Your task to perform on an android device: Search for the new Air Jordan 13 on Nike.com Image 0: 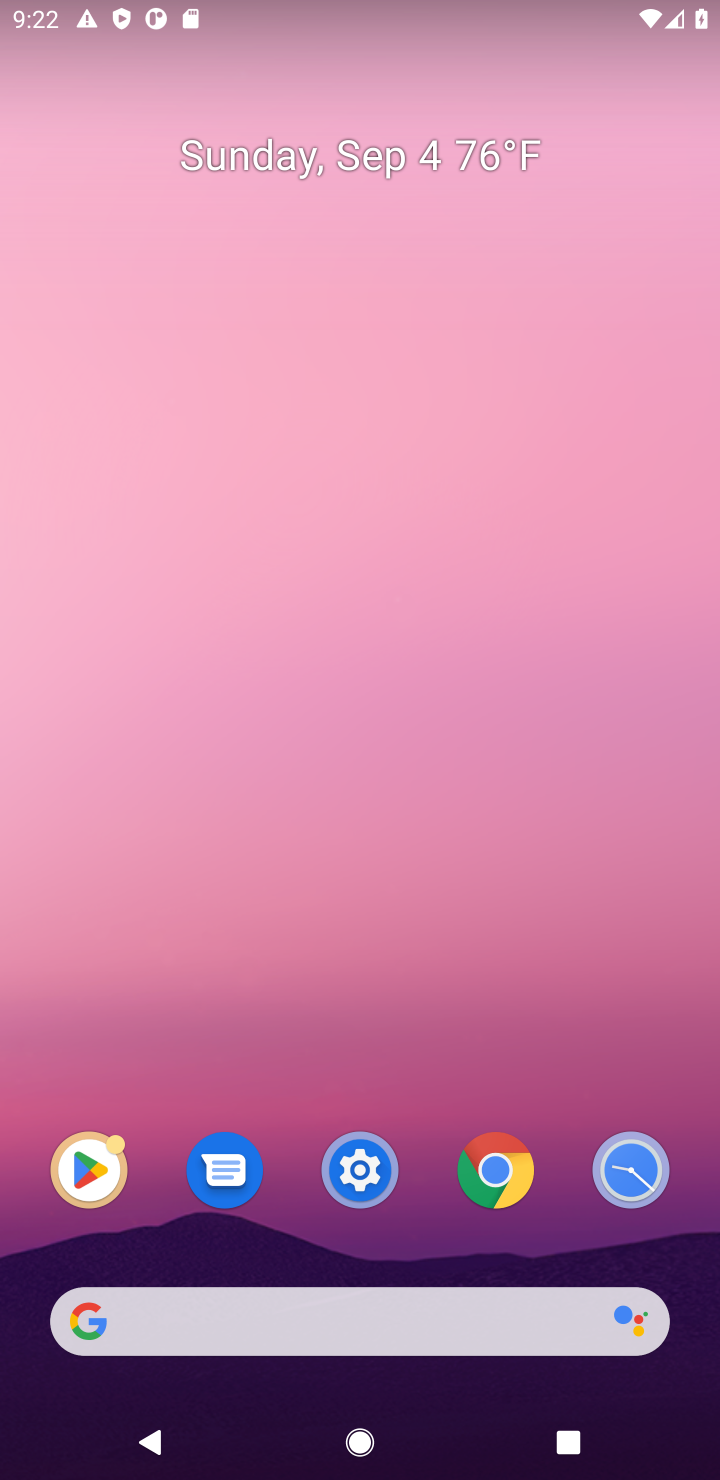
Step 0: press home button
Your task to perform on an android device: Search for the new Air Jordan 13 on Nike.com Image 1: 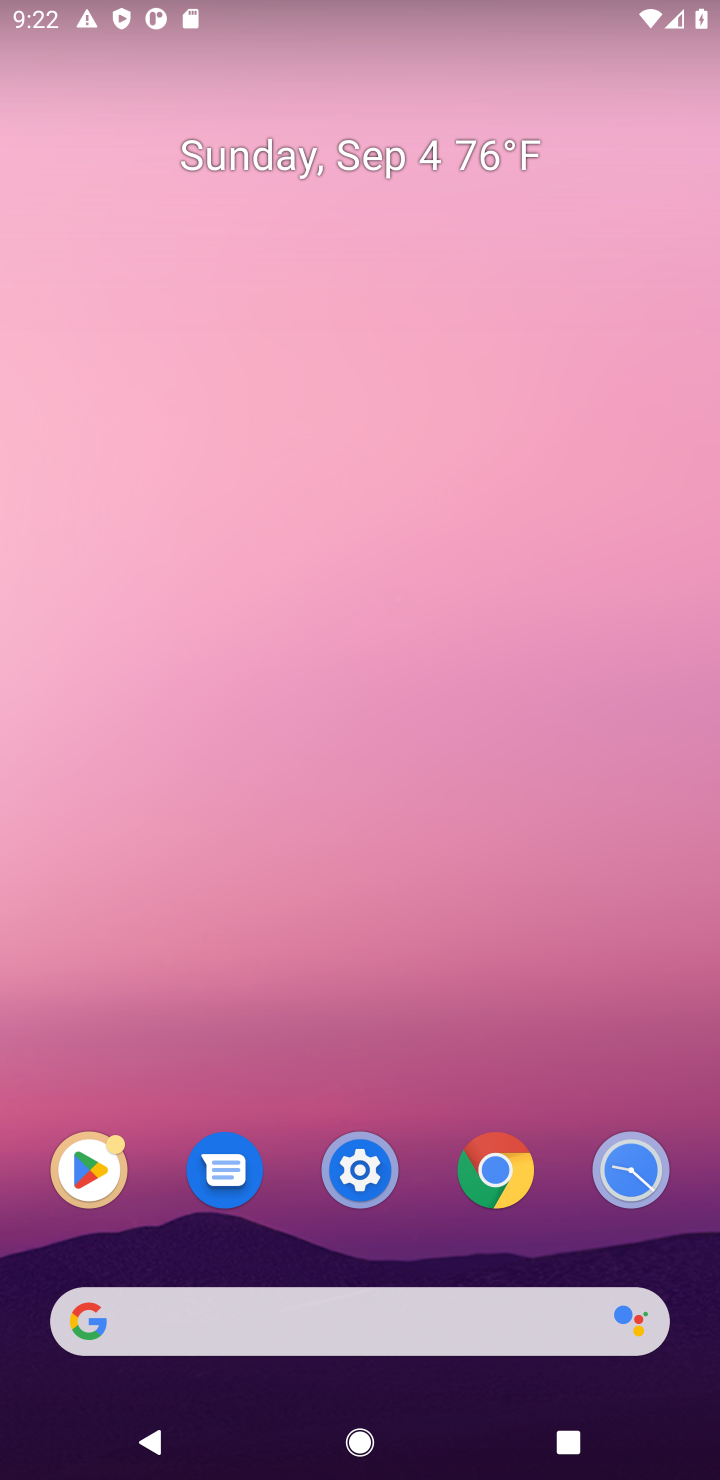
Step 1: click (369, 1327)
Your task to perform on an android device: Search for the new Air Jordan 13 on Nike.com Image 2: 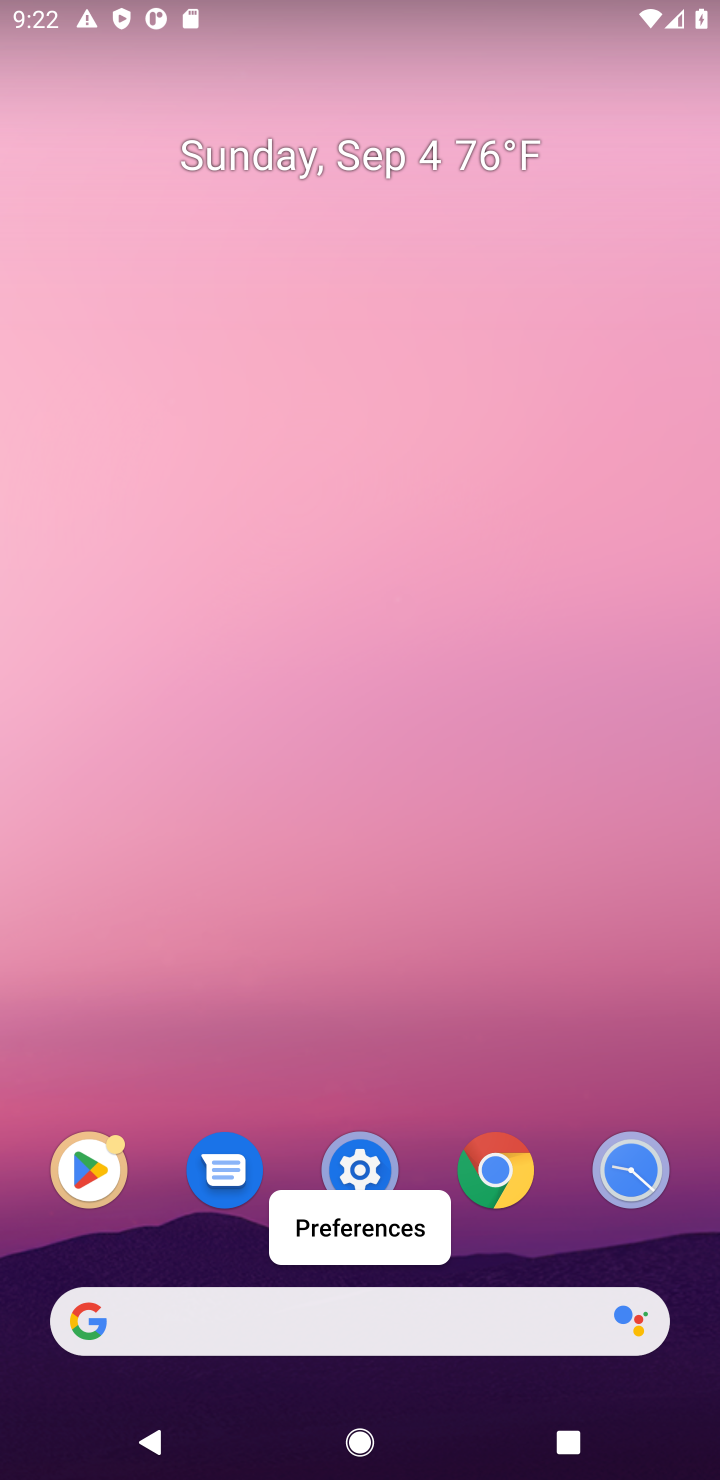
Step 2: click (325, 1302)
Your task to perform on an android device: Search for the new Air Jordan 13 on Nike.com Image 3: 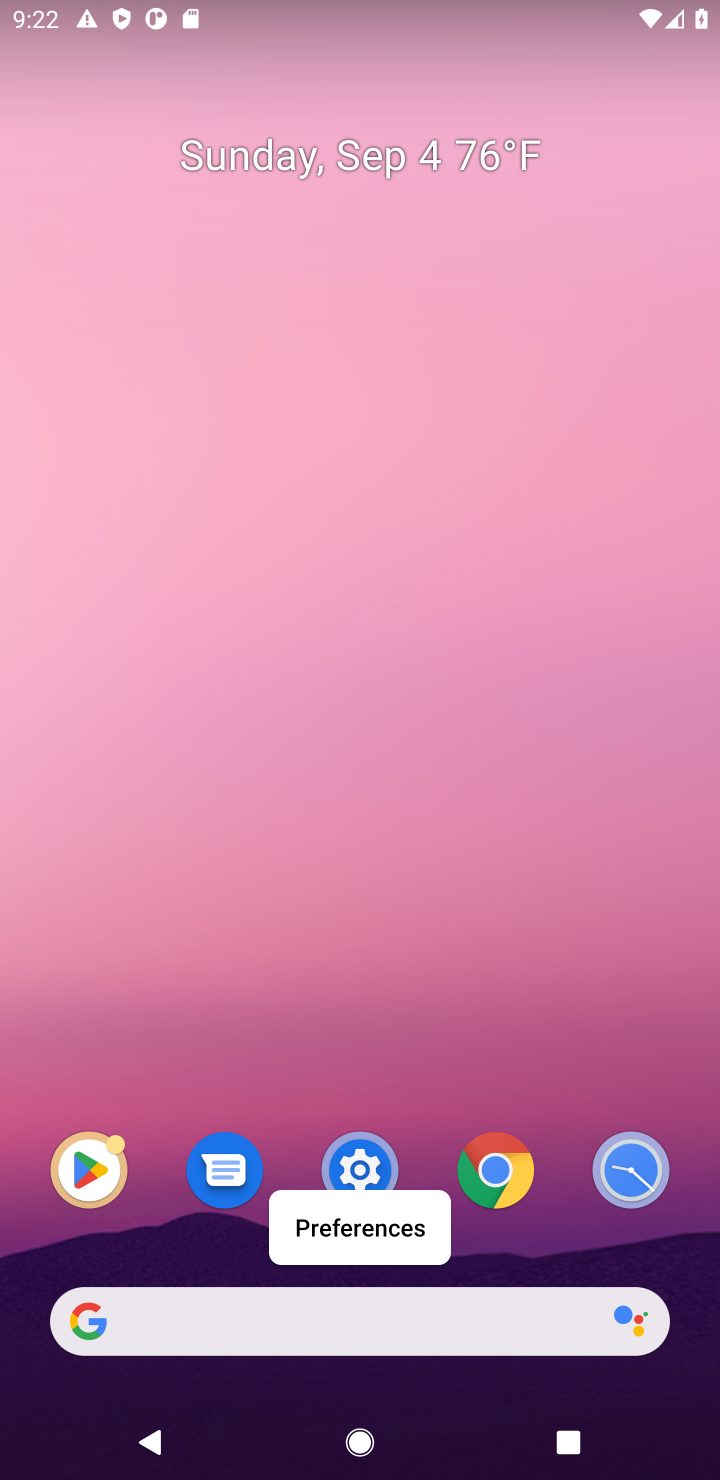
Step 3: click (444, 1294)
Your task to perform on an android device: Search for the new Air Jordan 13 on Nike.com Image 4: 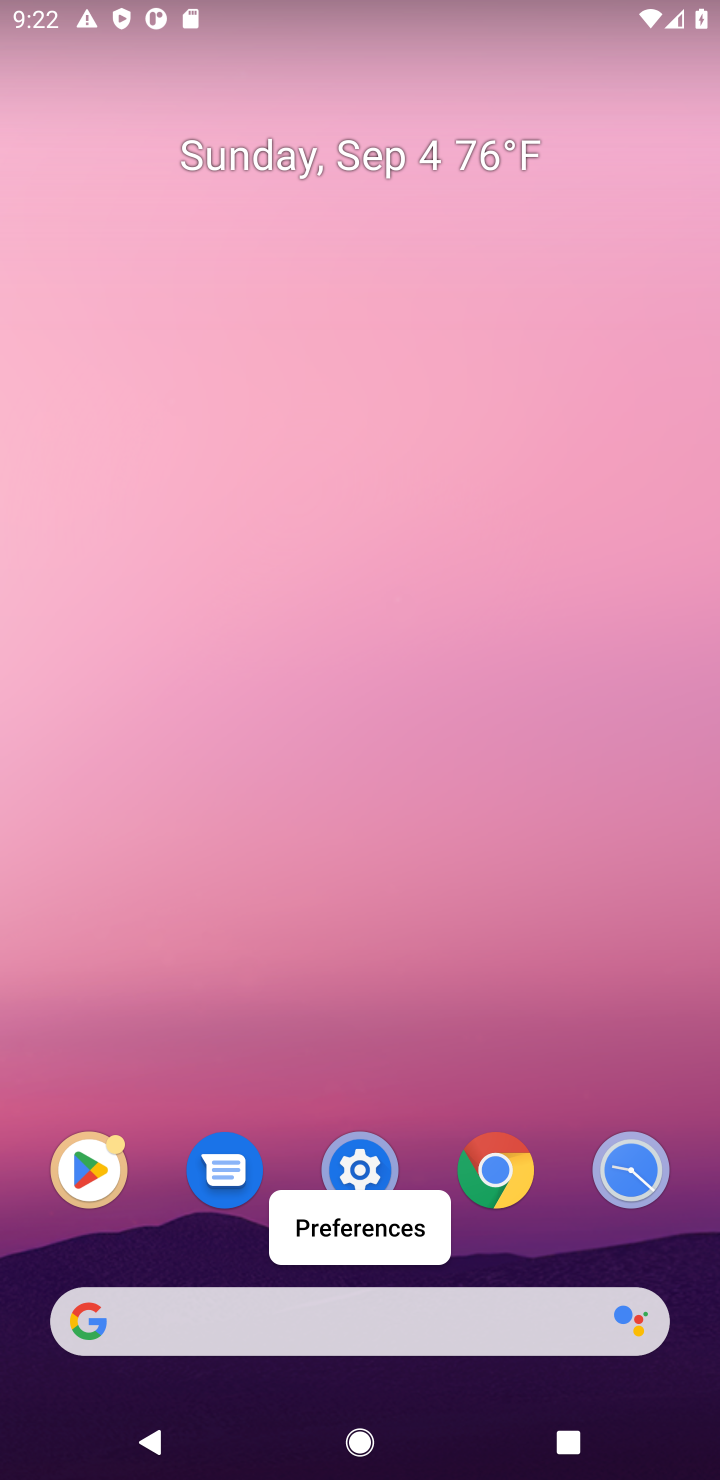
Step 4: click (429, 1331)
Your task to perform on an android device: Search for the new Air Jordan 13 on Nike.com Image 5: 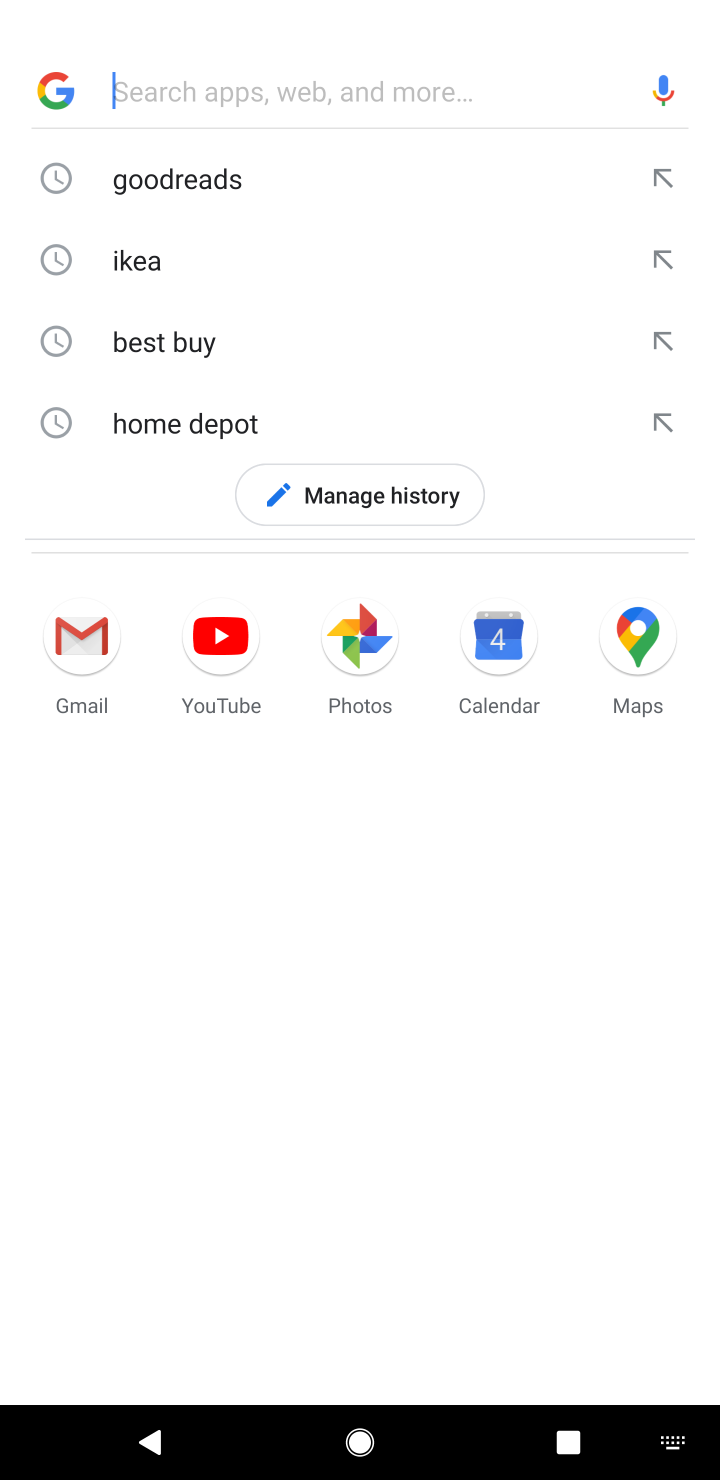
Step 5: type "Nike.com"
Your task to perform on an android device: Search for the new Air Jordan 13 on Nike.com Image 6: 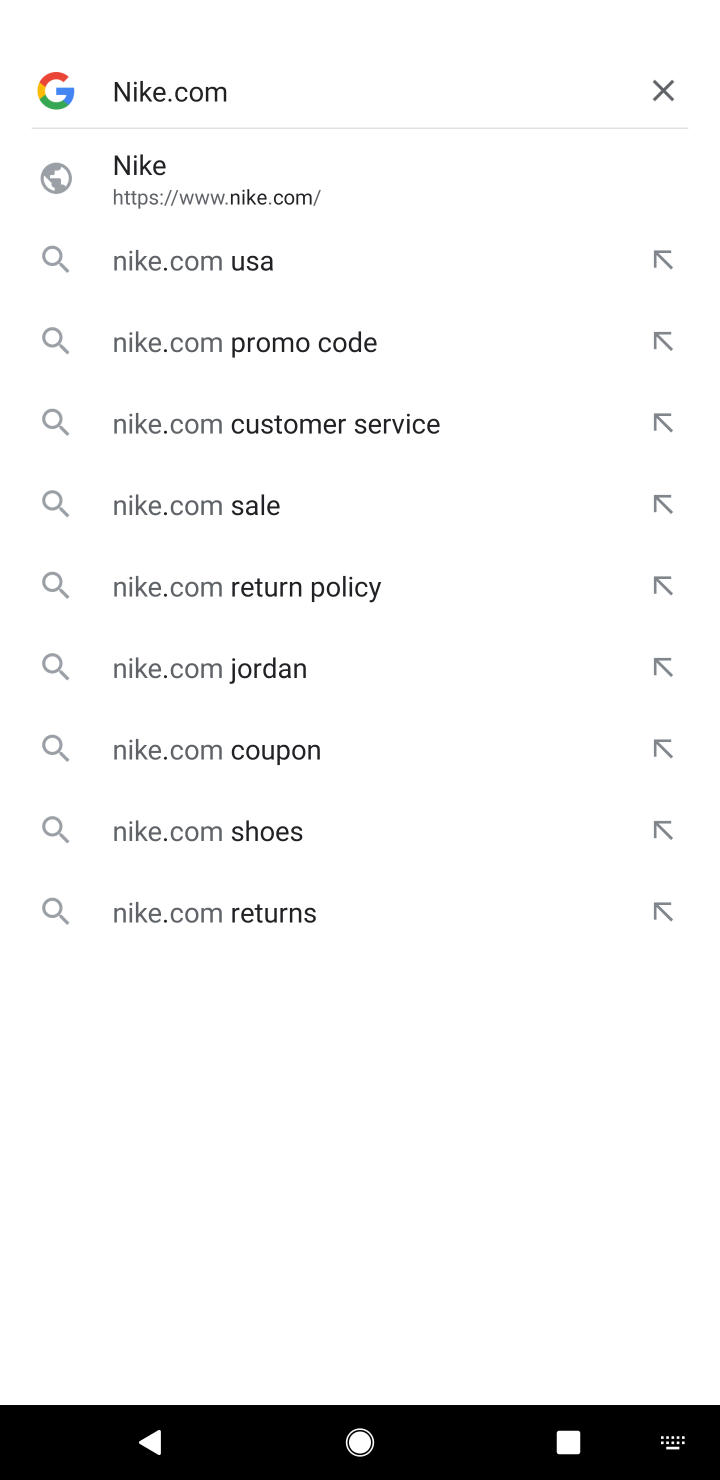
Step 6: click (241, 200)
Your task to perform on an android device: Search for the new Air Jordan 13 on Nike.com Image 7: 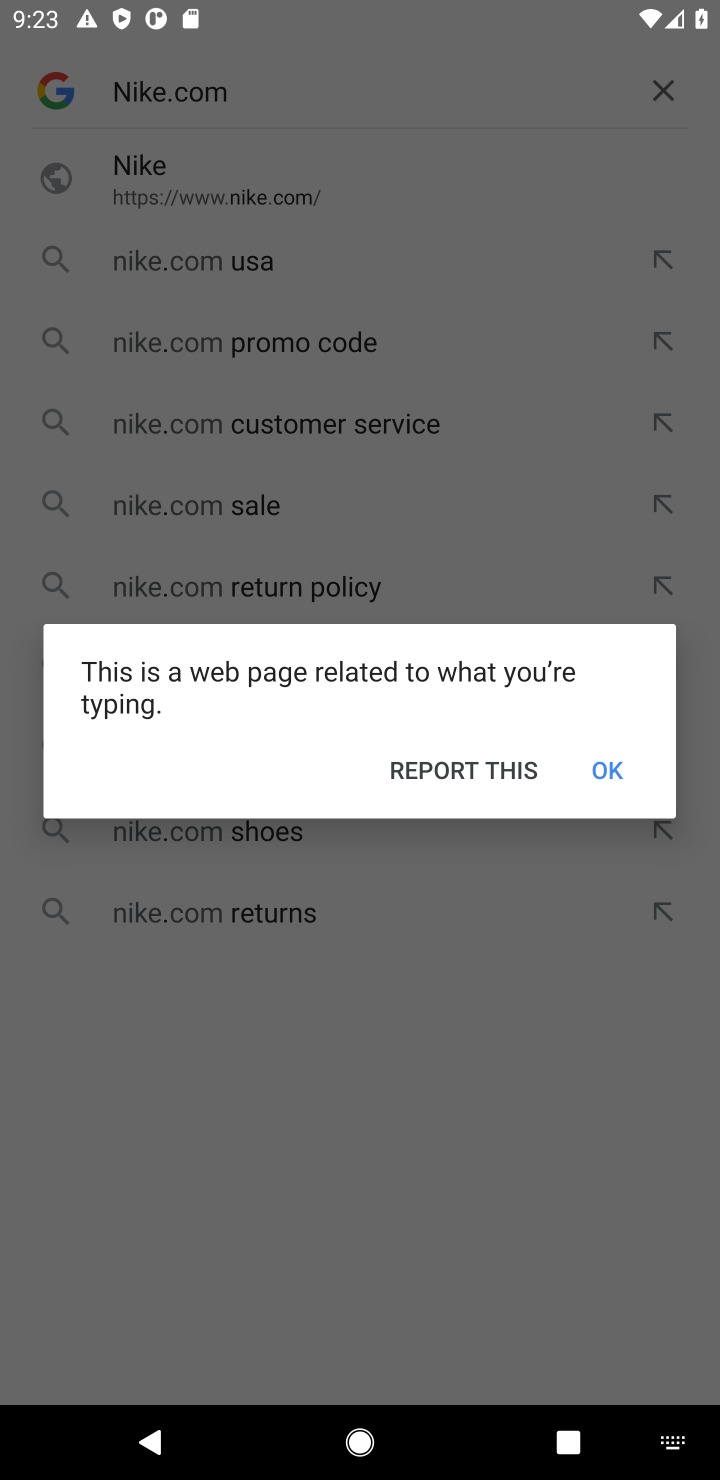
Step 7: click (624, 778)
Your task to perform on an android device: Search for the new Air Jordan 13 on Nike.com Image 8: 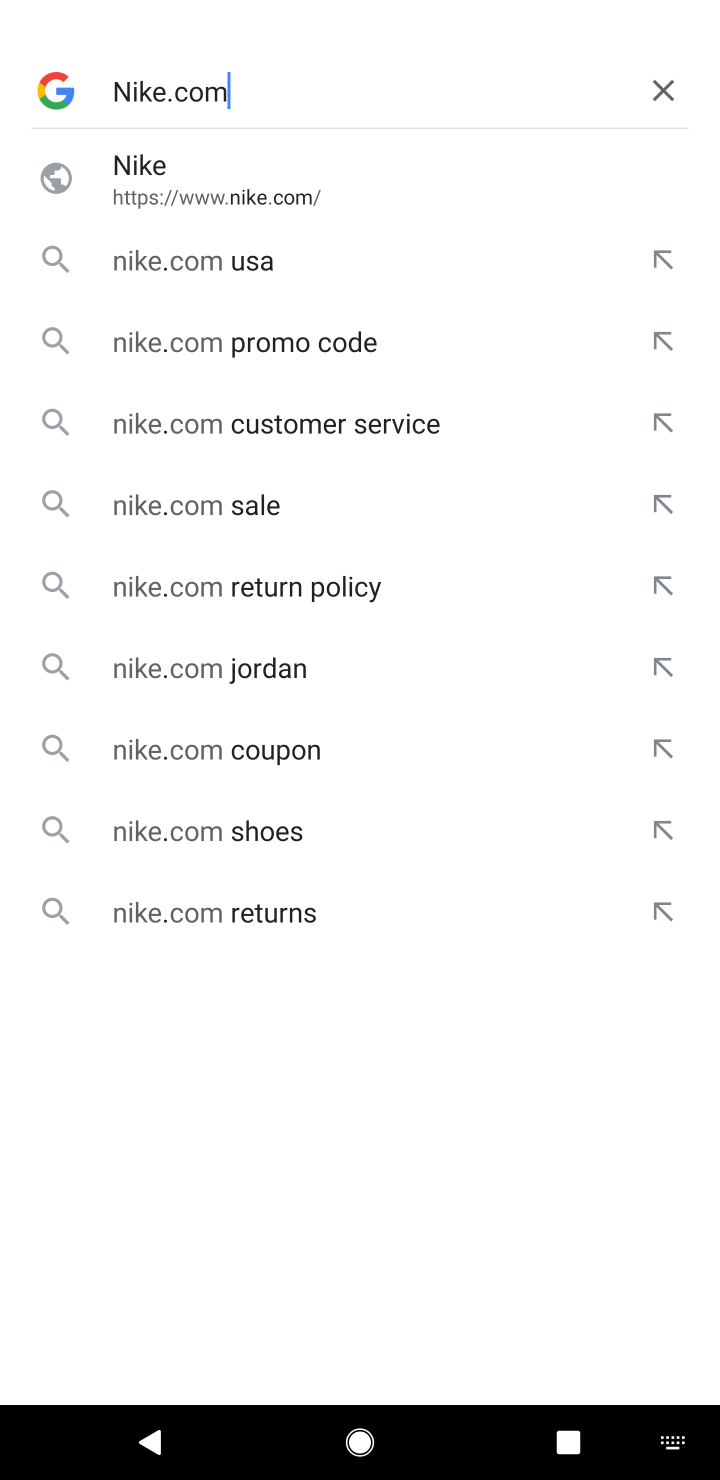
Step 8: click (293, 205)
Your task to perform on an android device: Search for the new Air Jordan 13 on Nike.com Image 9: 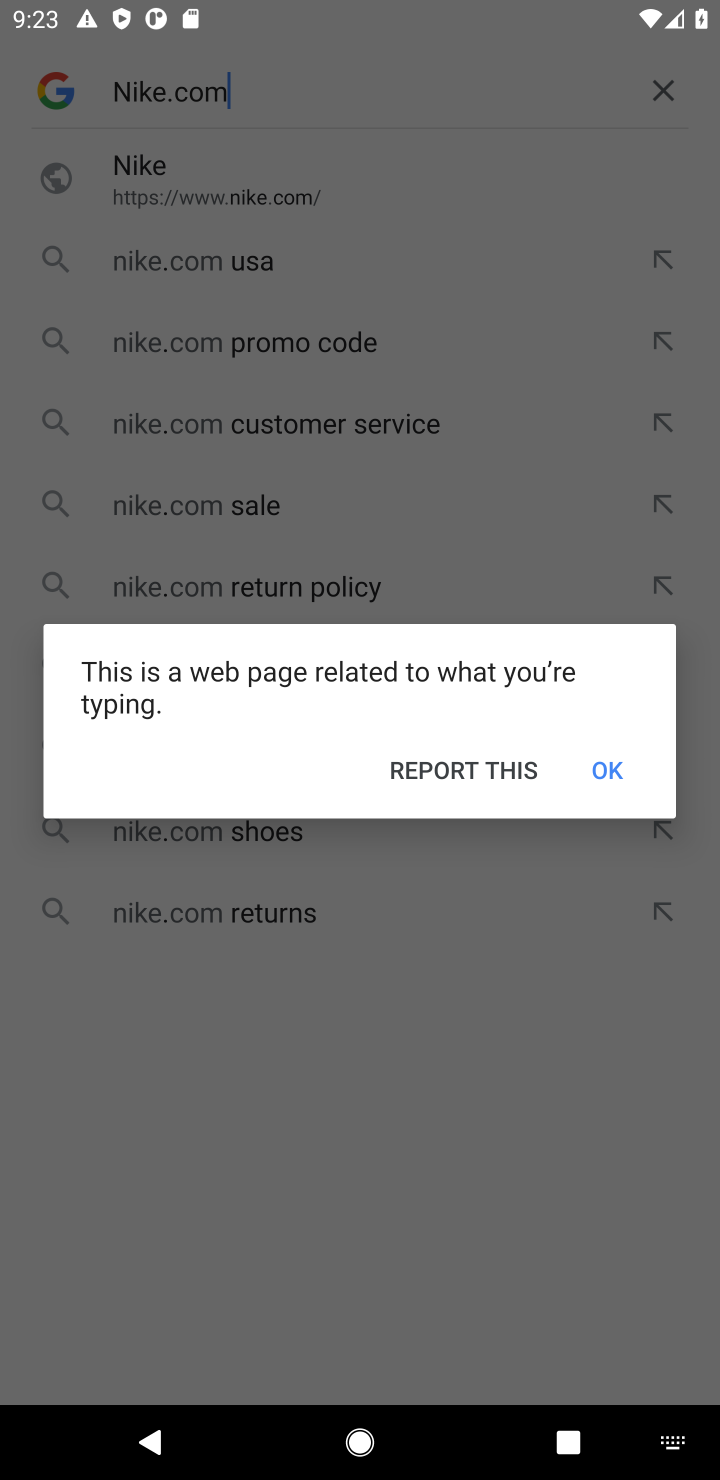
Step 9: click (567, 773)
Your task to perform on an android device: Search for the new Air Jordan 13 on Nike.com Image 10: 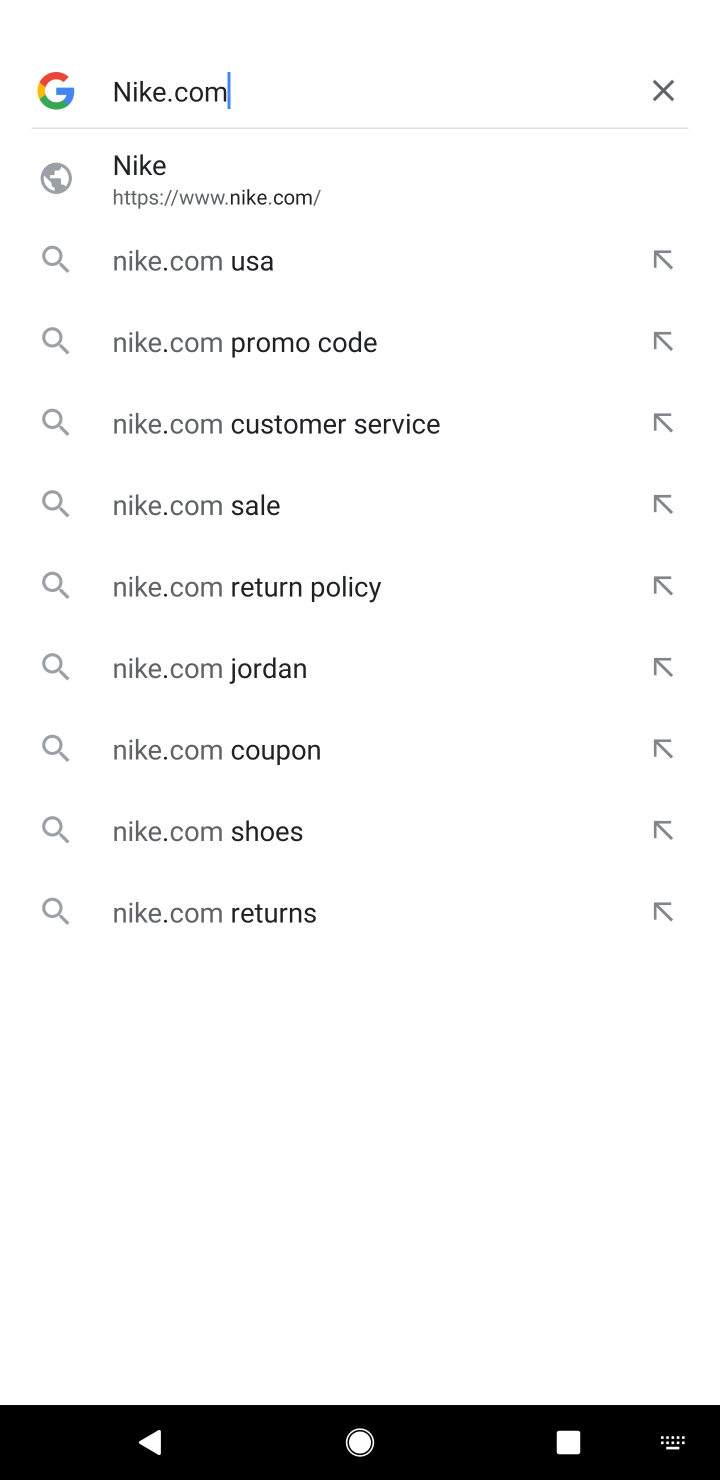
Step 10: click (263, 157)
Your task to perform on an android device: Search for the new Air Jordan 13 on Nike.com Image 11: 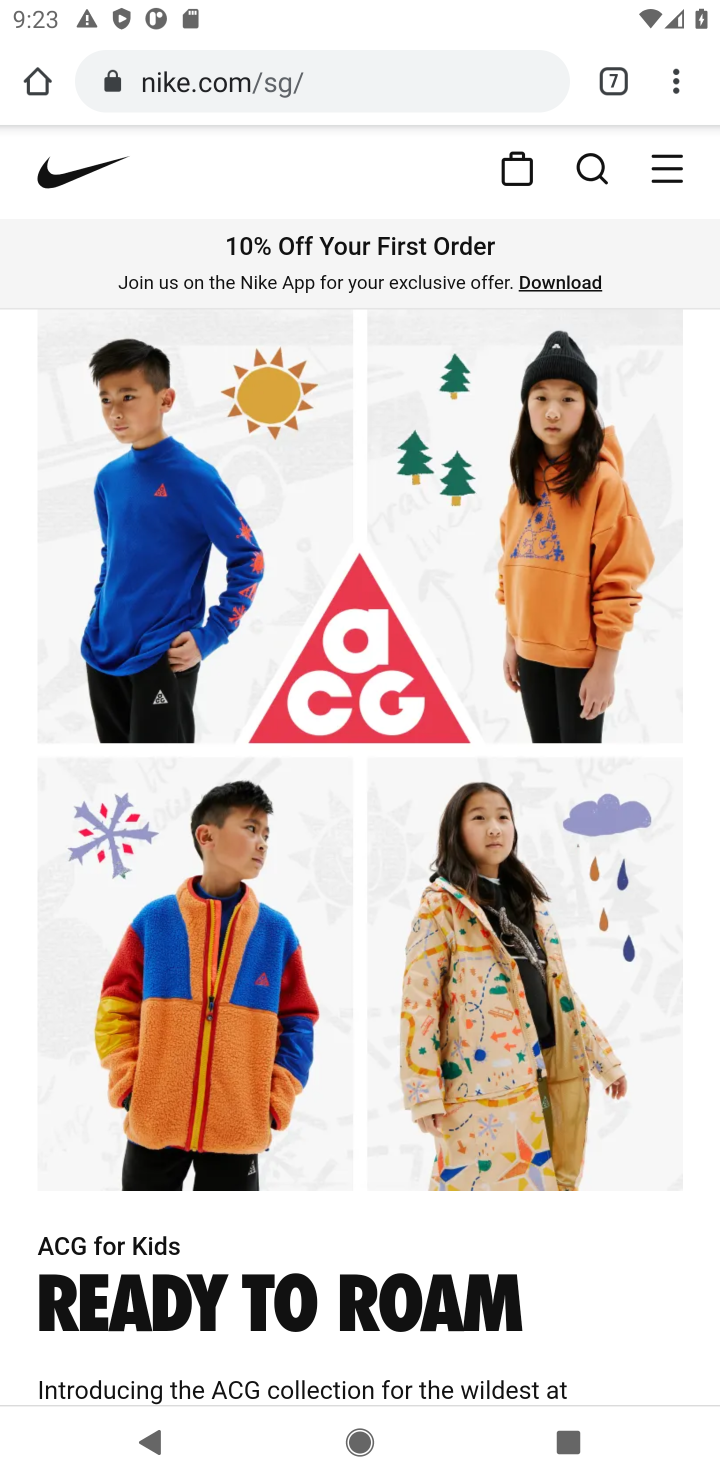
Step 11: click (599, 169)
Your task to perform on an android device: Search for the new Air Jordan 13 on Nike.com Image 12: 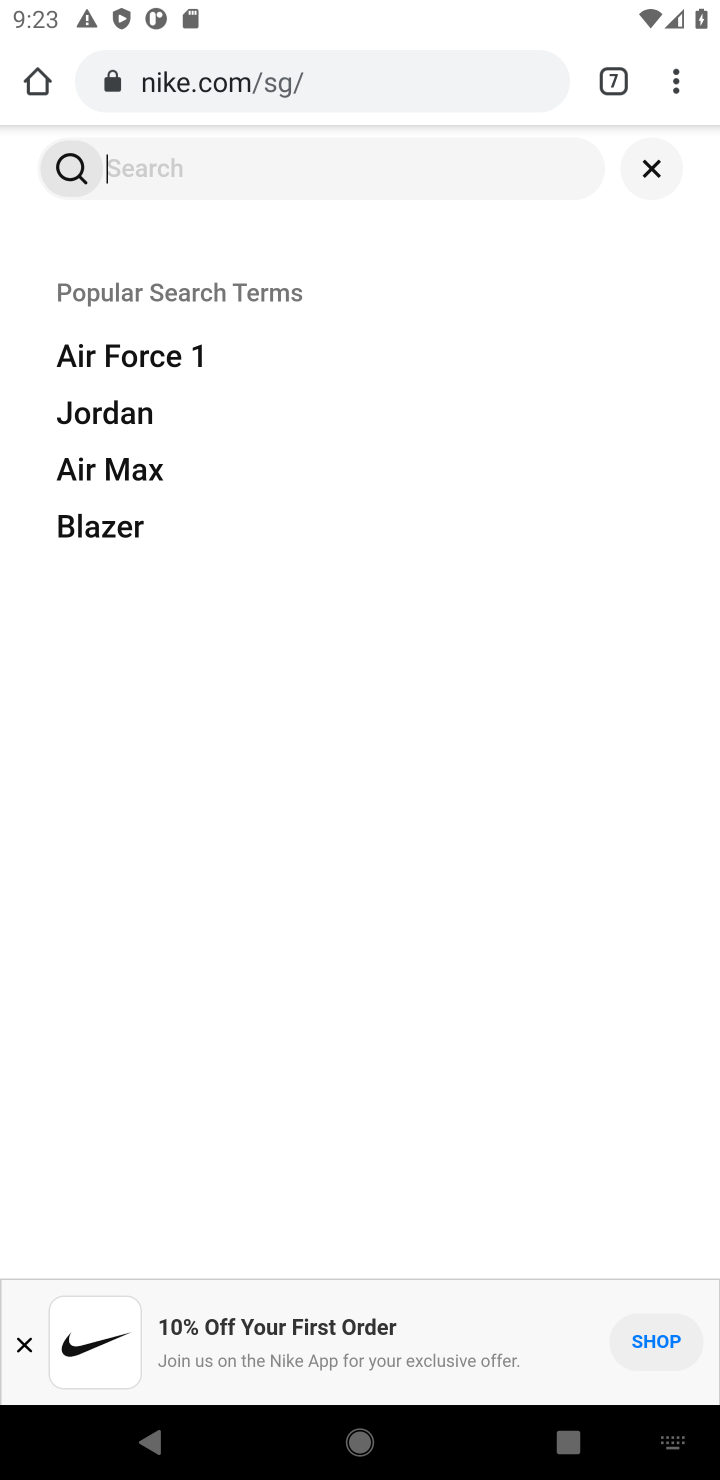
Step 12: type "Air Jordan 13"
Your task to perform on an android device: Search for the new Air Jordan 13 on Nike.com Image 13: 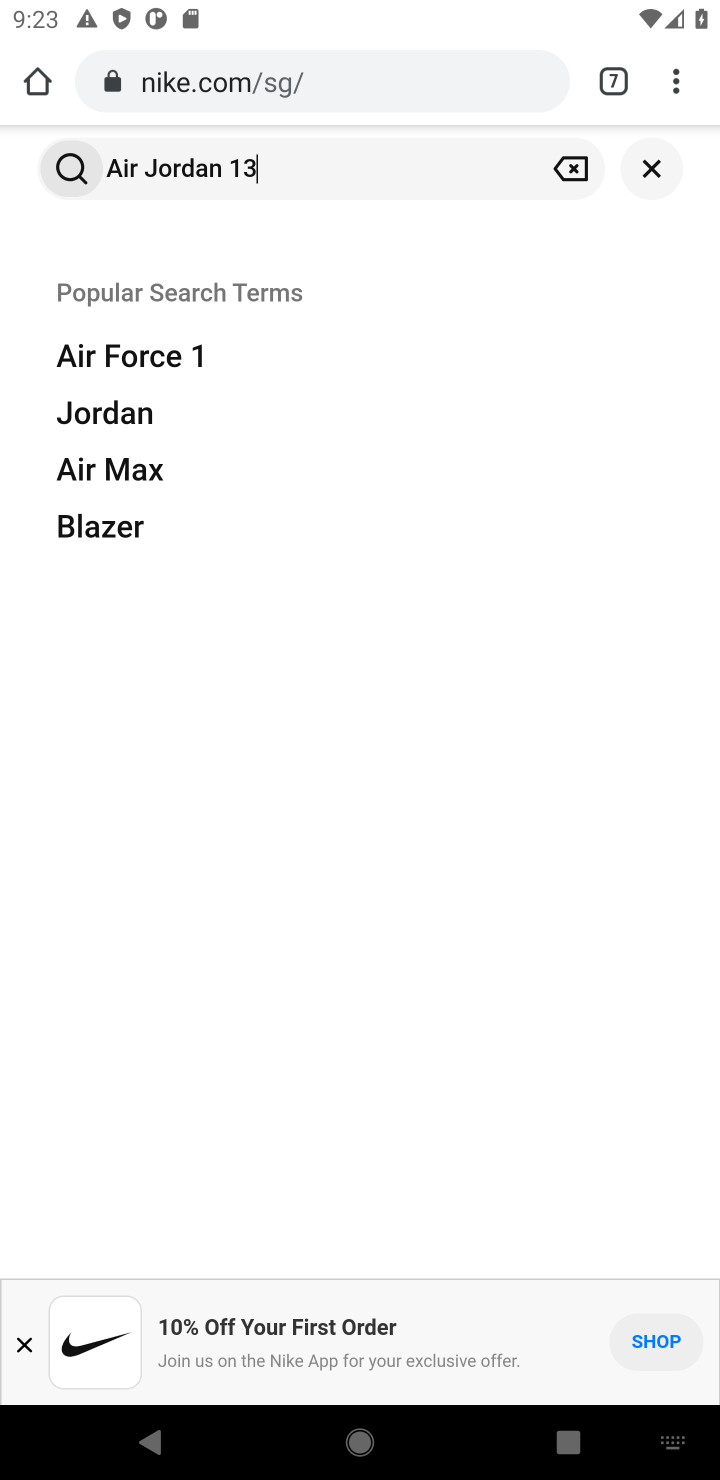
Step 13: type ""
Your task to perform on an android device: Search for the new Air Jordan 13 on Nike.com Image 14: 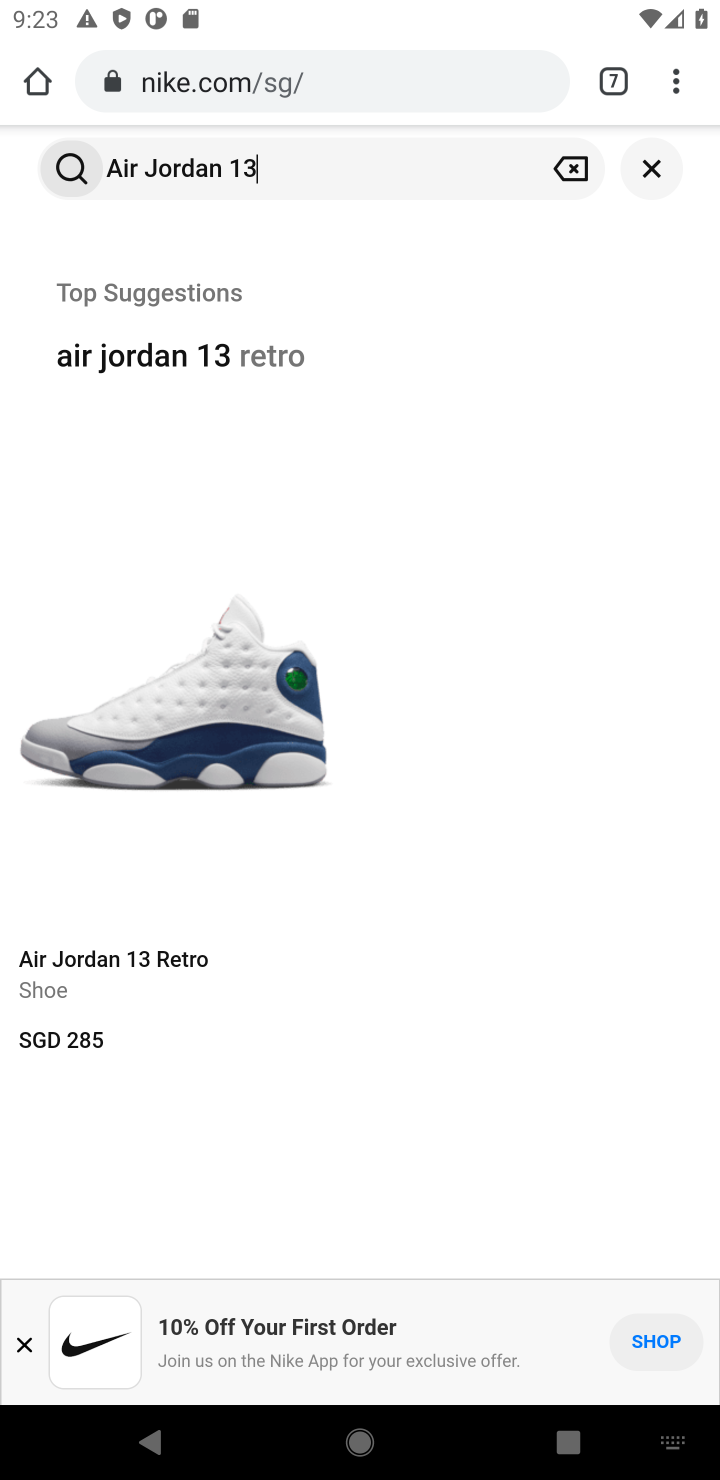
Step 14: task complete